Your task to perform on an android device: stop showing notifications on the lock screen Image 0: 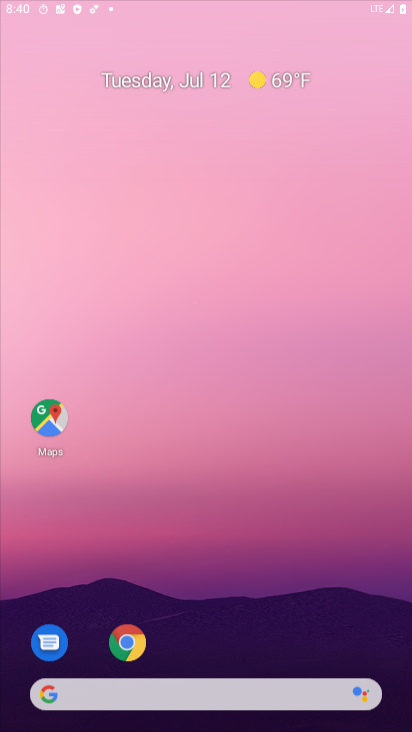
Step 0: press home button
Your task to perform on an android device: stop showing notifications on the lock screen Image 1: 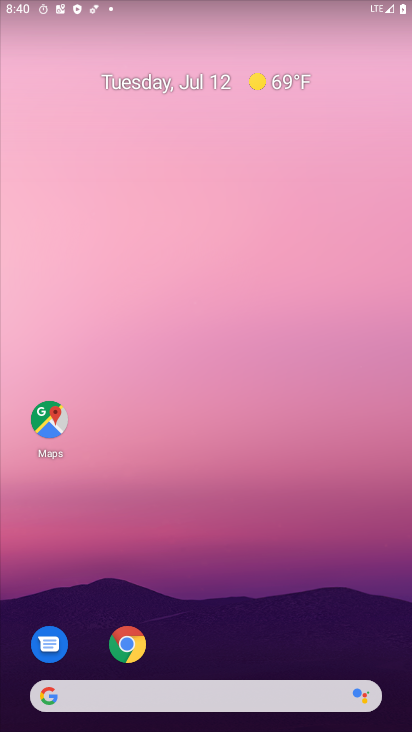
Step 1: drag from (217, 656) to (294, 33)
Your task to perform on an android device: stop showing notifications on the lock screen Image 2: 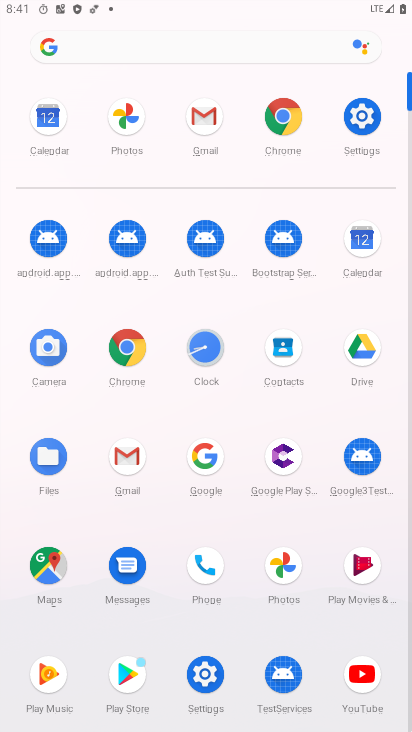
Step 2: click (358, 107)
Your task to perform on an android device: stop showing notifications on the lock screen Image 3: 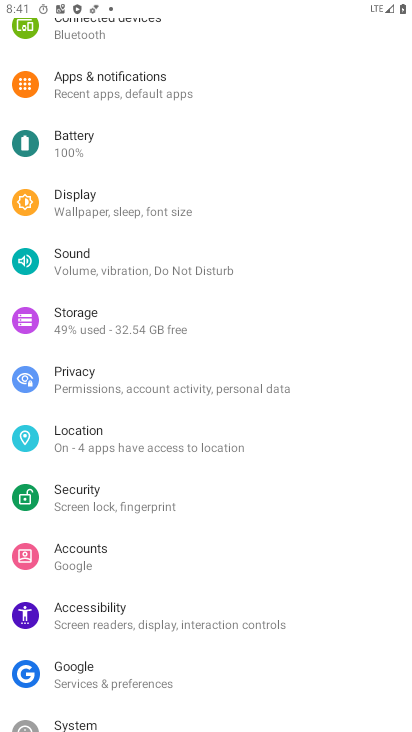
Step 3: click (174, 78)
Your task to perform on an android device: stop showing notifications on the lock screen Image 4: 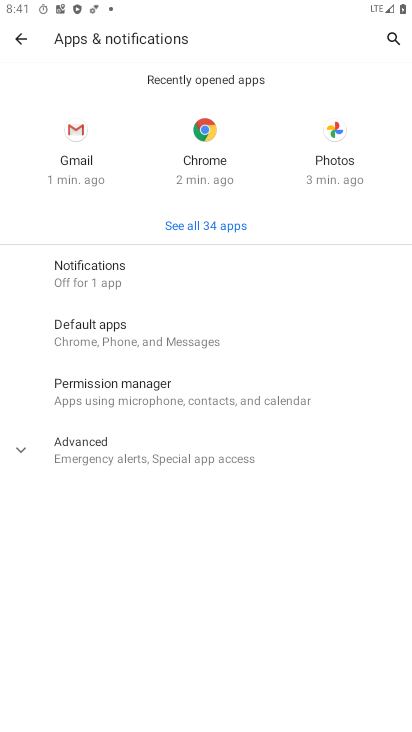
Step 4: click (139, 275)
Your task to perform on an android device: stop showing notifications on the lock screen Image 5: 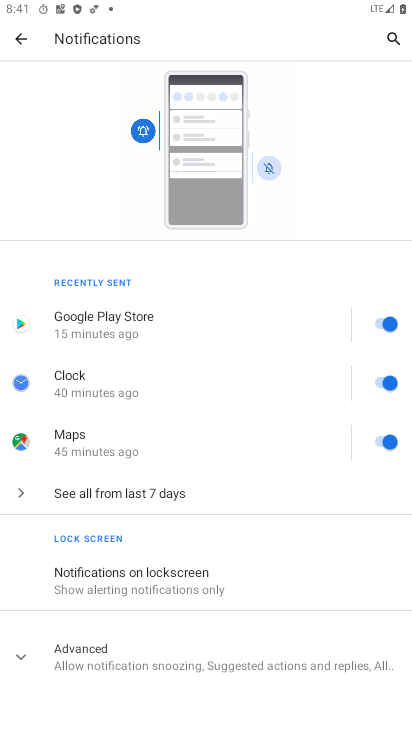
Step 5: click (205, 570)
Your task to perform on an android device: stop showing notifications on the lock screen Image 6: 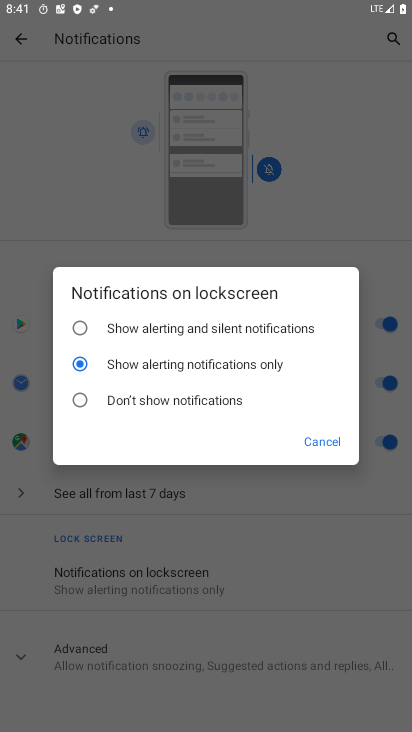
Step 6: click (77, 402)
Your task to perform on an android device: stop showing notifications on the lock screen Image 7: 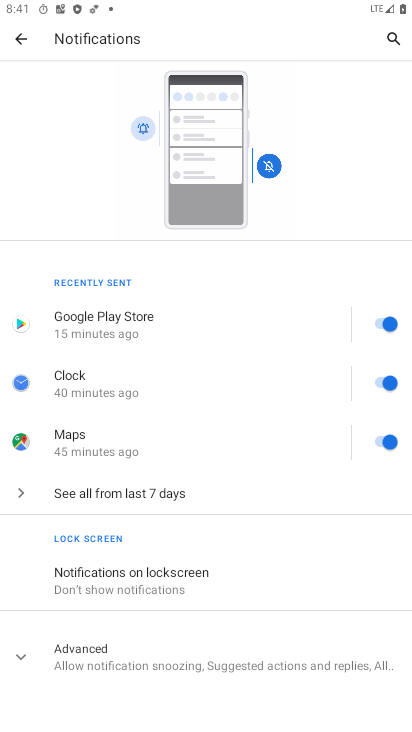
Step 7: task complete